Your task to perform on an android device: remove spam from my inbox in the gmail app Image 0: 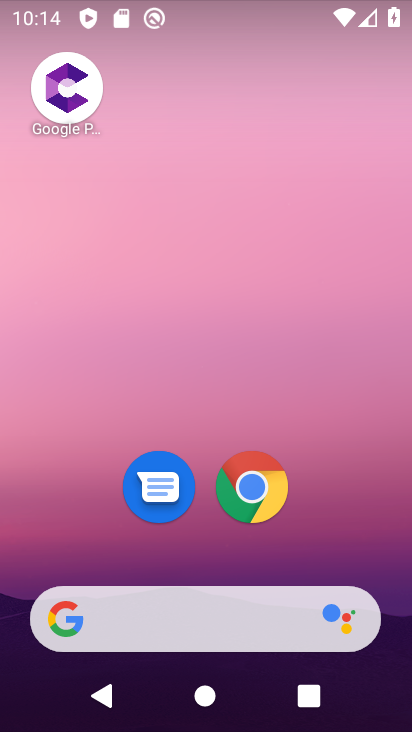
Step 0: drag from (52, 564) to (189, 67)
Your task to perform on an android device: remove spam from my inbox in the gmail app Image 1: 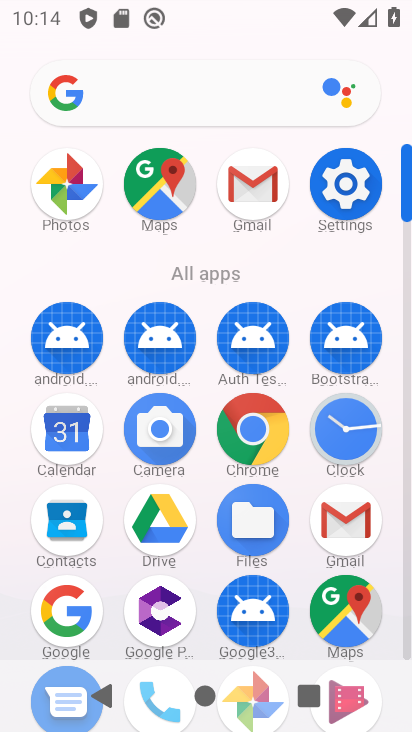
Step 1: click (344, 515)
Your task to perform on an android device: remove spam from my inbox in the gmail app Image 2: 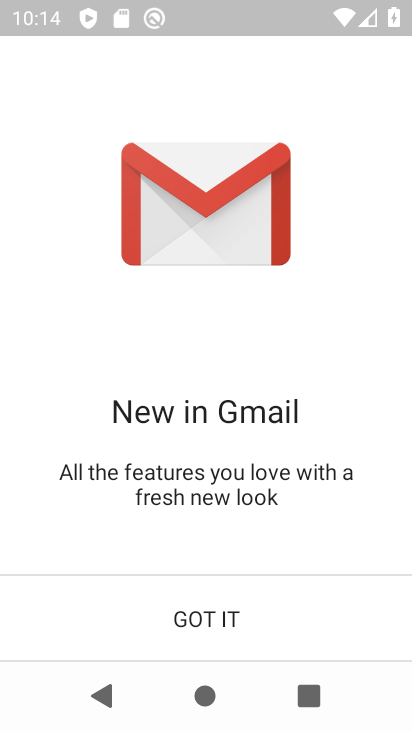
Step 2: click (344, 516)
Your task to perform on an android device: remove spam from my inbox in the gmail app Image 3: 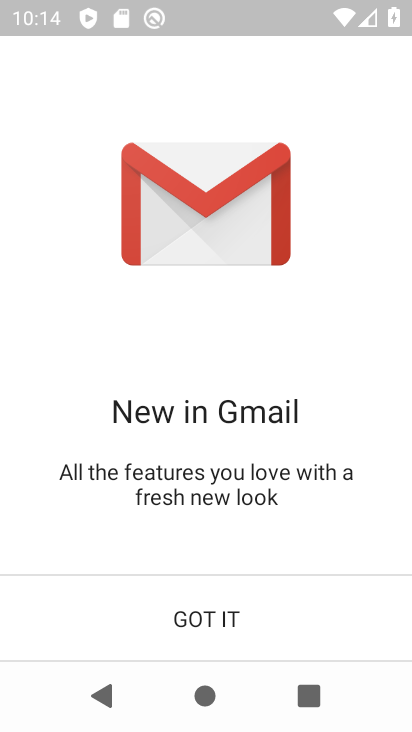
Step 3: click (230, 616)
Your task to perform on an android device: remove spam from my inbox in the gmail app Image 4: 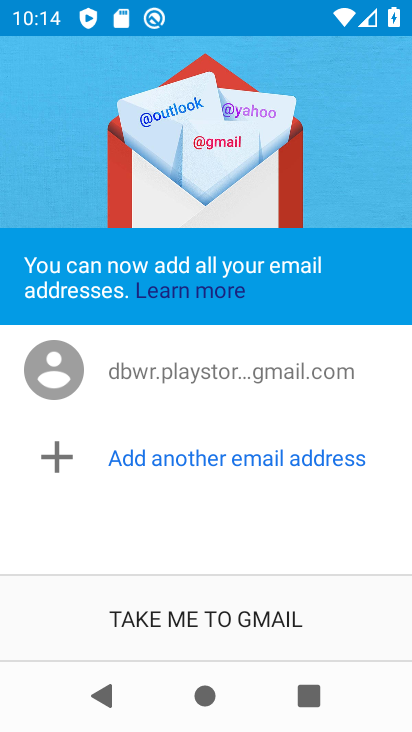
Step 4: click (287, 614)
Your task to perform on an android device: remove spam from my inbox in the gmail app Image 5: 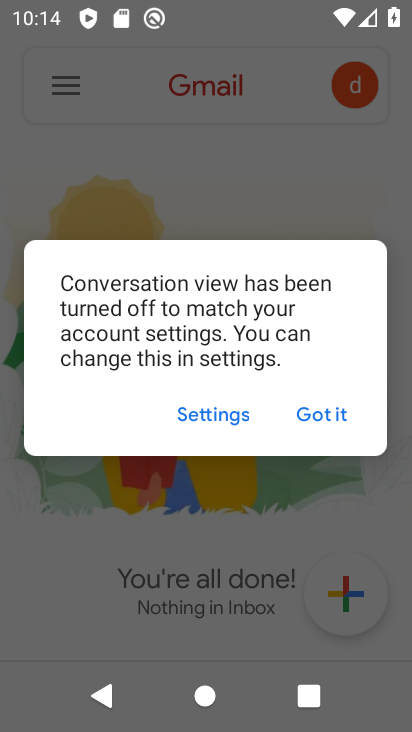
Step 5: click (341, 418)
Your task to perform on an android device: remove spam from my inbox in the gmail app Image 6: 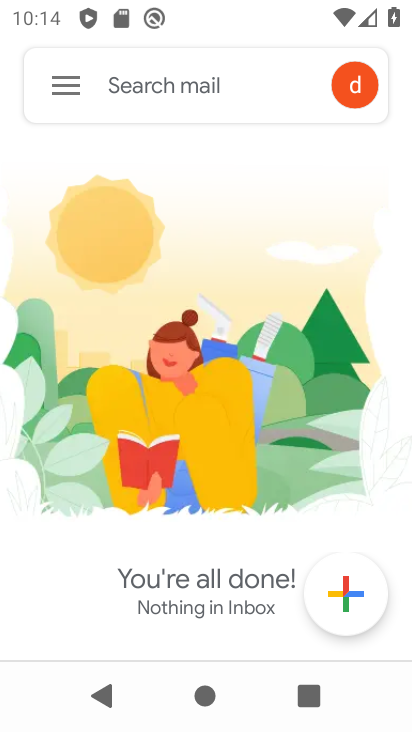
Step 6: click (59, 102)
Your task to perform on an android device: remove spam from my inbox in the gmail app Image 7: 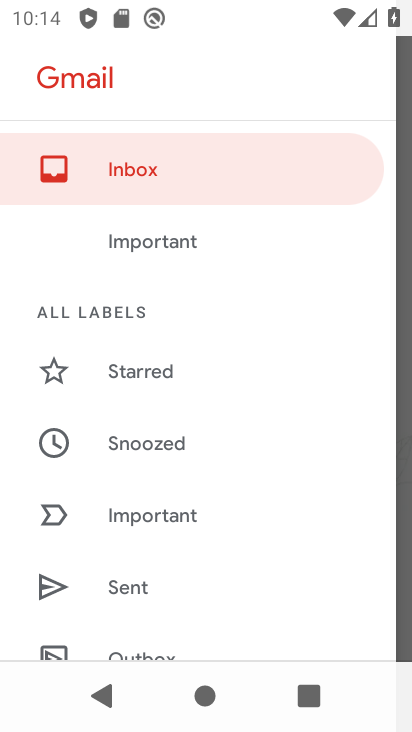
Step 7: drag from (167, 583) to (260, 262)
Your task to perform on an android device: remove spam from my inbox in the gmail app Image 8: 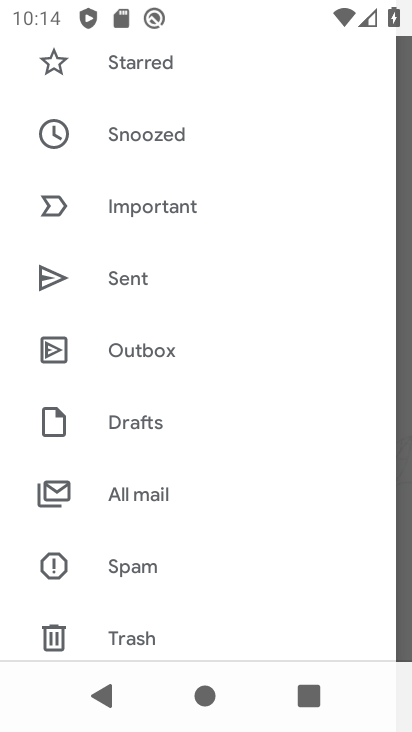
Step 8: click (178, 578)
Your task to perform on an android device: remove spam from my inbox in the gmail app Image 9: 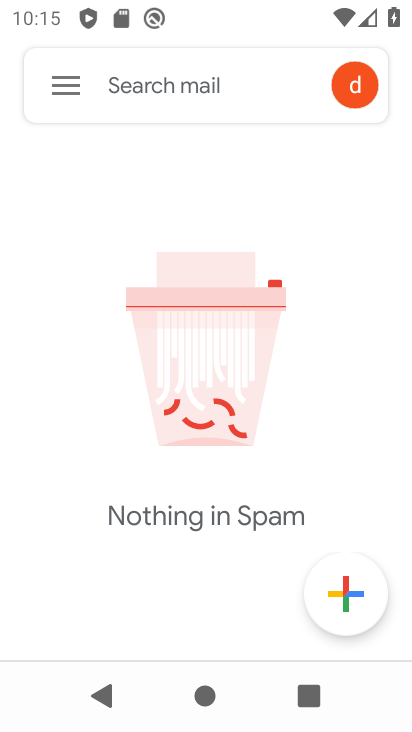
Step 9: task complete